Your task to perform on an android device: Show me the alarms in the clock app Image 0: 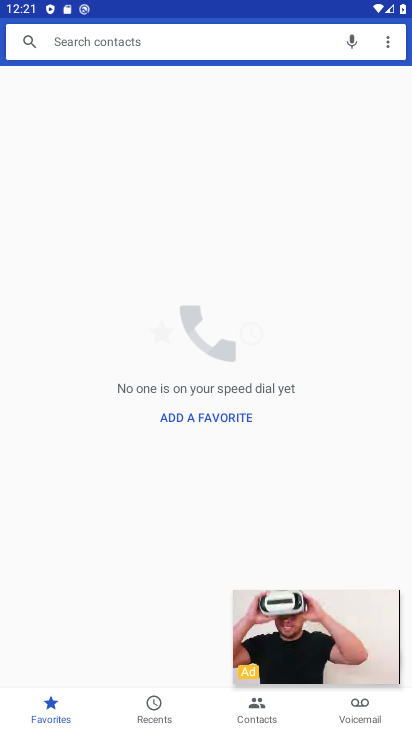
Step 0: click (340, 650)
Your task to perform on an android device: Show me the alarms in the clock app Image 1: 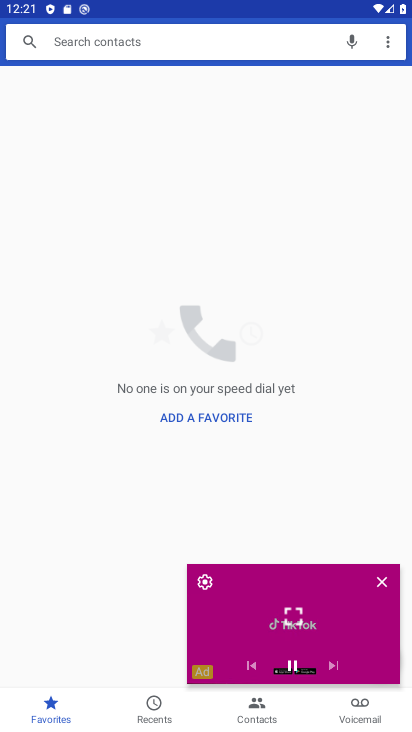
Step 1: click (376, 591)
Your task to perform on an android device: Show me the alarms in the clock app Image 2: 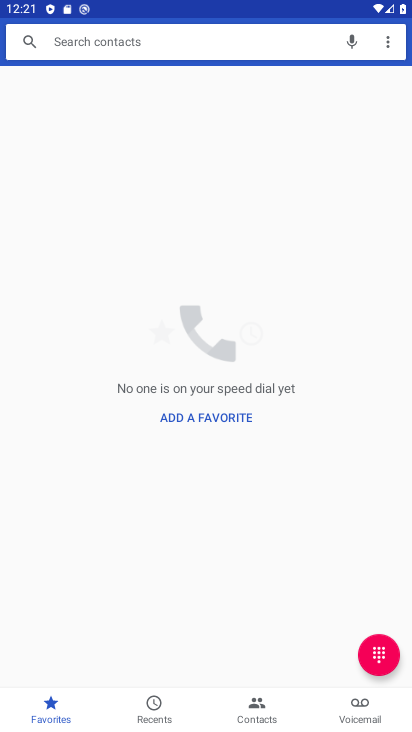
Step 2: press home button
Your task to perform on an android device: Show me the alarms in the clock app Image 3: 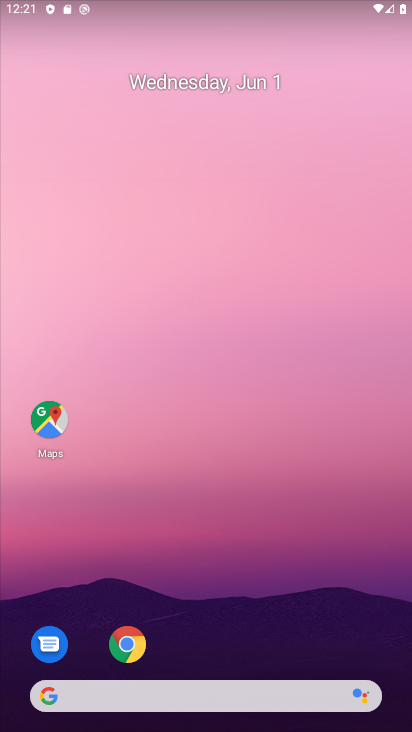
Step 3: drag from (306, 622) to (212, 72)
Your task to perform on an android device: Show me the alarms in the clock app Image 4: 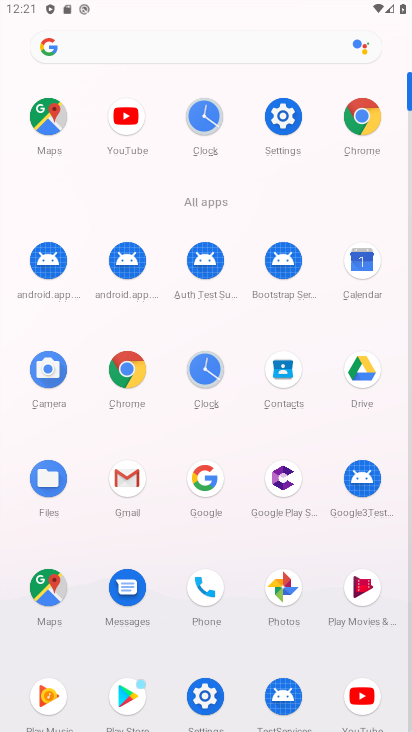
Step 4: click (201, 370)
Your task to perform on an android device: Show me the alarms in the clock app Image 5: 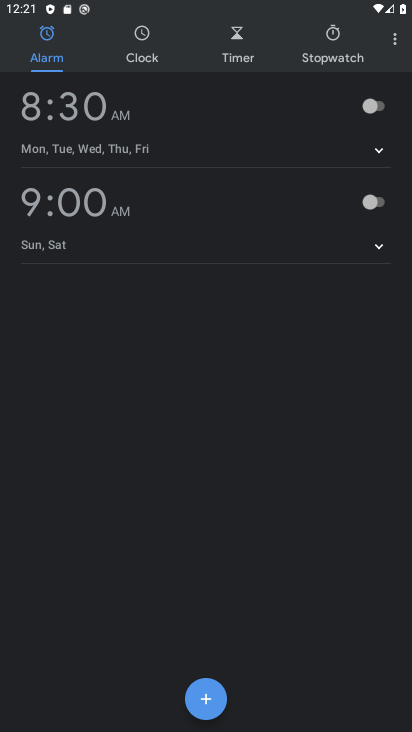
Step 5: task complete